Your task to perform on an android device: See recent photos Image 0: 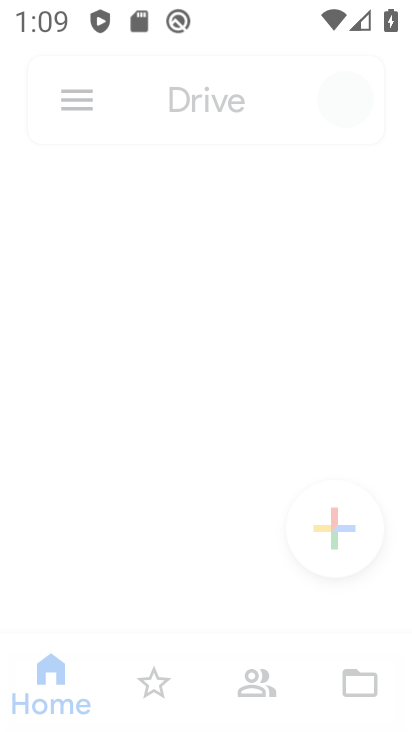
Step 0: drag from (359, 564) to (325, 169)
Your task to perform on an android device: See recent photos Image 1: 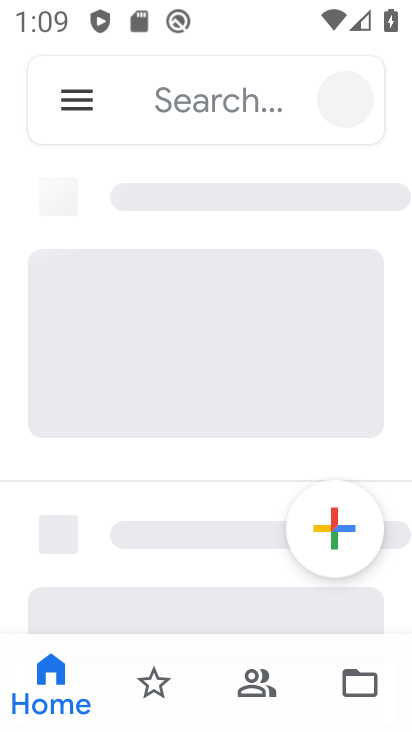
Step 1: press home button
Your task to perform on an android device: See recent photos Image 2: 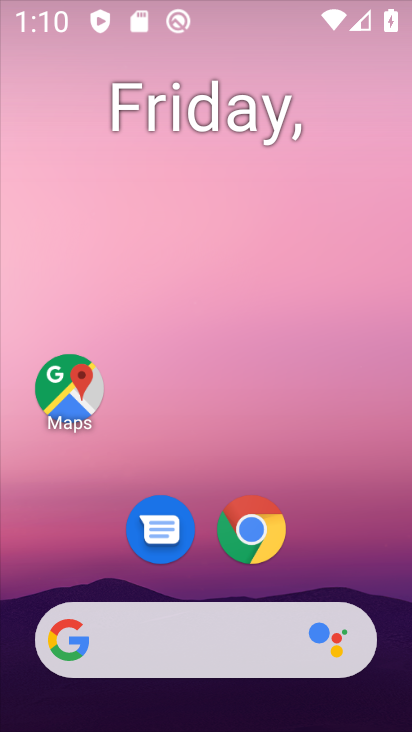
Step 2: drag from (390, 537) to (319, 70)
Your task to perform on an android device: See recent photos Image 3: 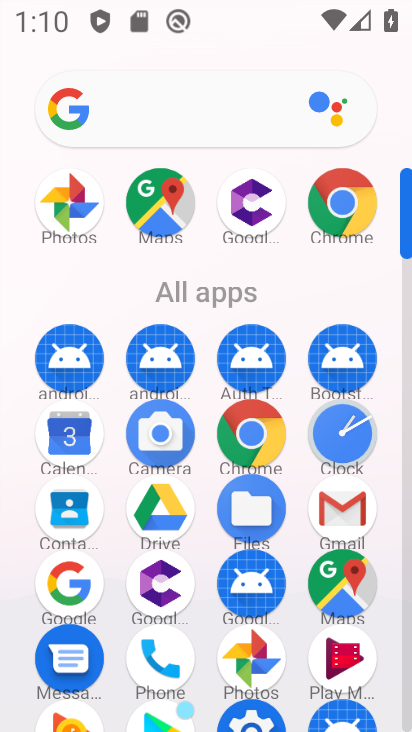
Step 3: drag from (304, 559) to (276, 344)
Your task to perform on an android device: See recent photos Image 4: 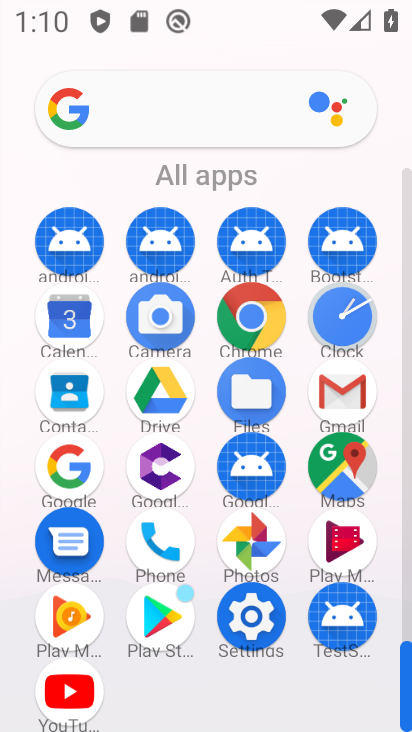
Step 4: click (248, 558)
Your task to perform on an android device: See recent photos Image 5: 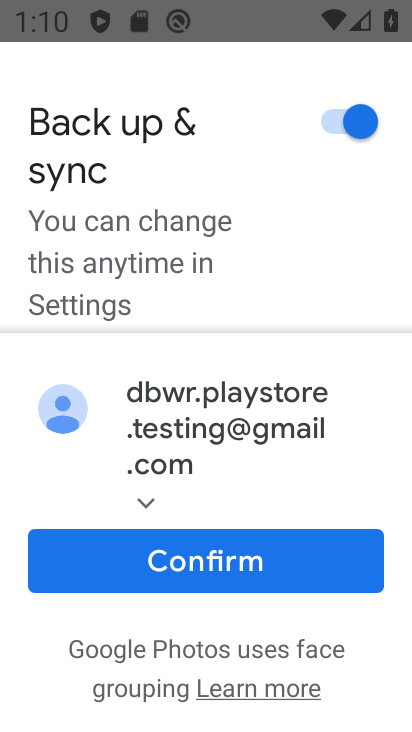
Step 5: click (221, 574)
Your task to perform on an android device: See recent photos Image 6: 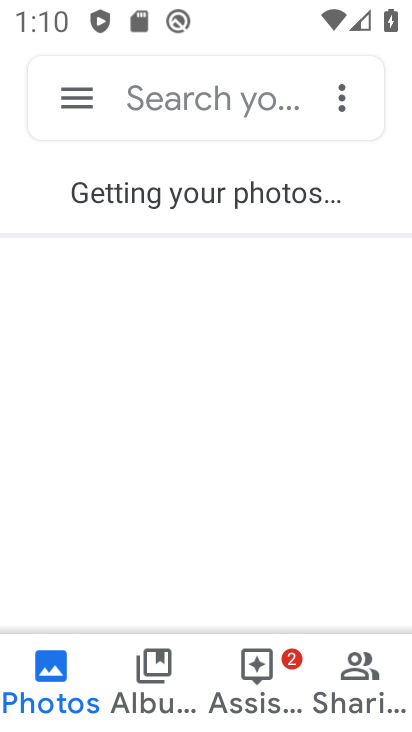
Step 6: task complete